Your task to perform on an android device: toggle improve location accuracy Image 0: 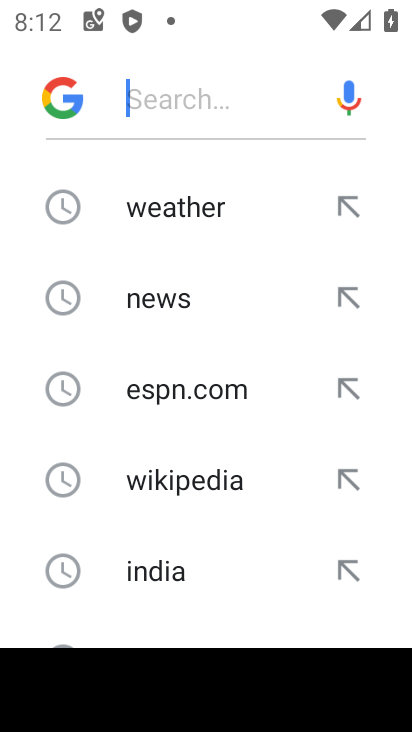
Step 0: press home button
Your task to perform on an android device: toggle improve location accuracy Image 1: 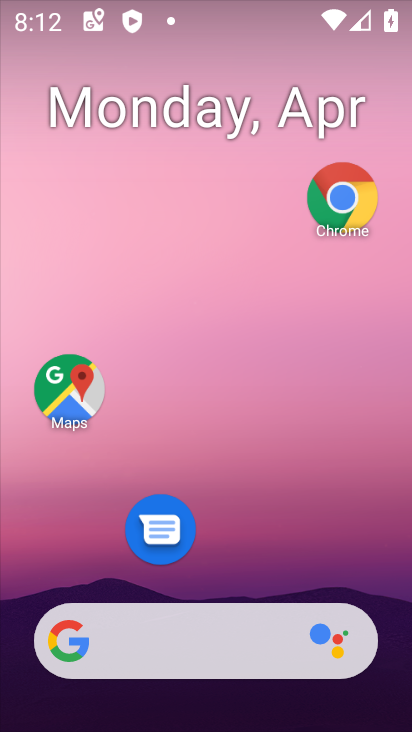
Step 1: drag from (215, 566) to (276, 20)
Your task to perform on an android device: toggle improve location accuracy Image 2: 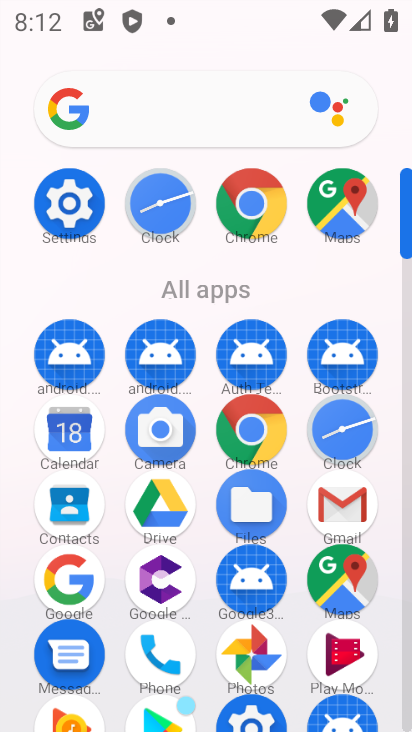
Step 2: click (66, 217)
Your task to perform on an android device: toggle improve location accuracy Image 3: 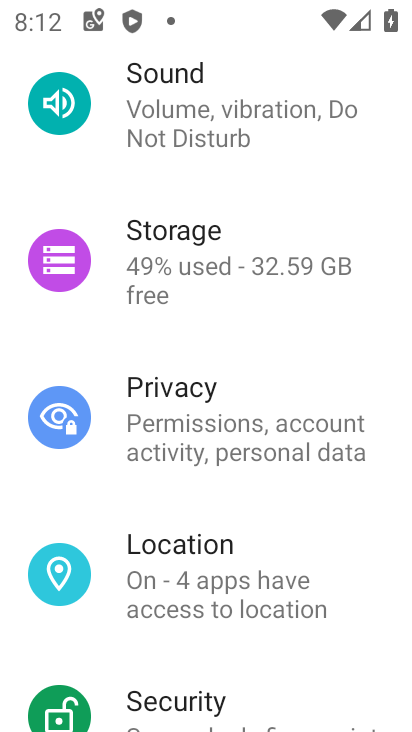
Step 3: click (224, 554)
Your task to perform on an android device: toggle improve location accuracy Image 4: 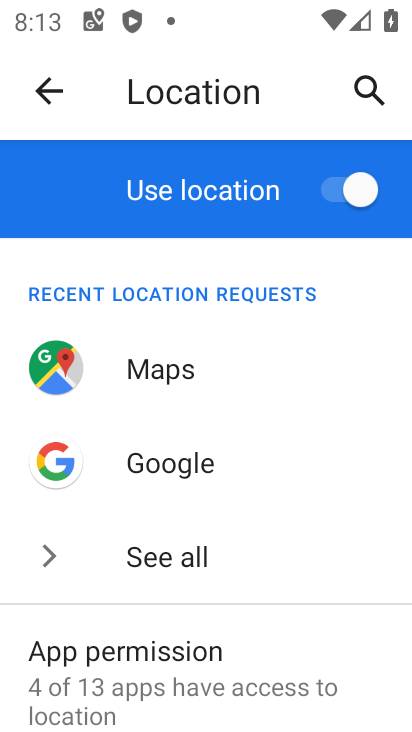
Step 4: drag from (191, 656) to (274, 171)
Your task to perform on an android device: toggle improve location accuracy Image 5: 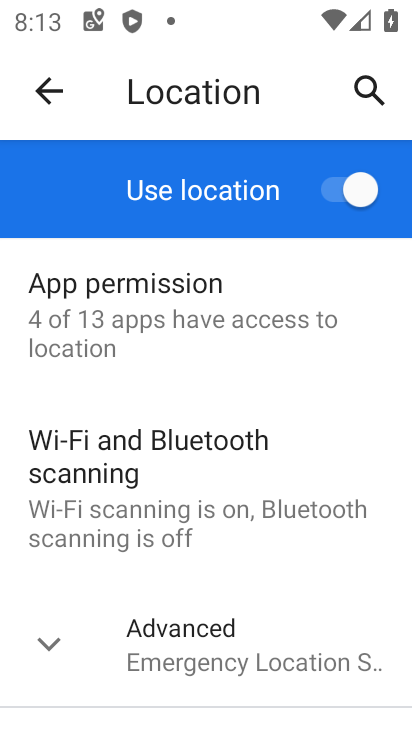
Step 5: click (213, 647)
Your task to perform on an android device: toggle improve location accuracy Image 6: 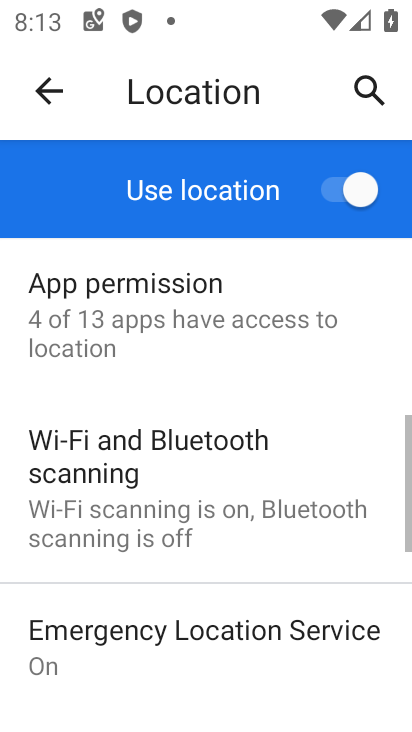
Step 6: drag from (170, 599) to (262, 136)
Your task to perform on an android device: toggle improve location accuracy Image 7: 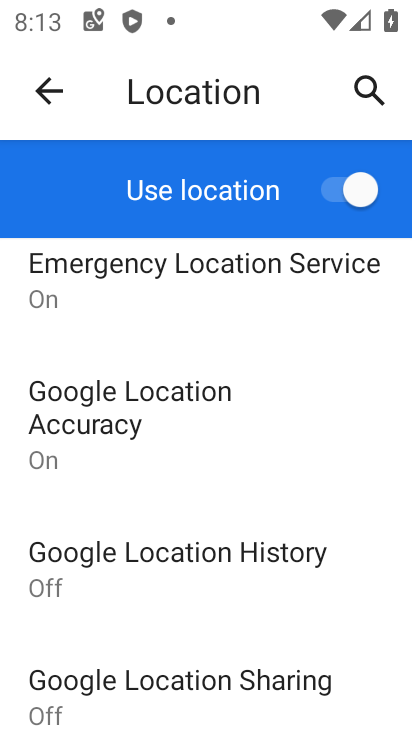
Step 7: click (159, 415)
Your task to perform on an android device: toggle improve location accuracy Image 8: 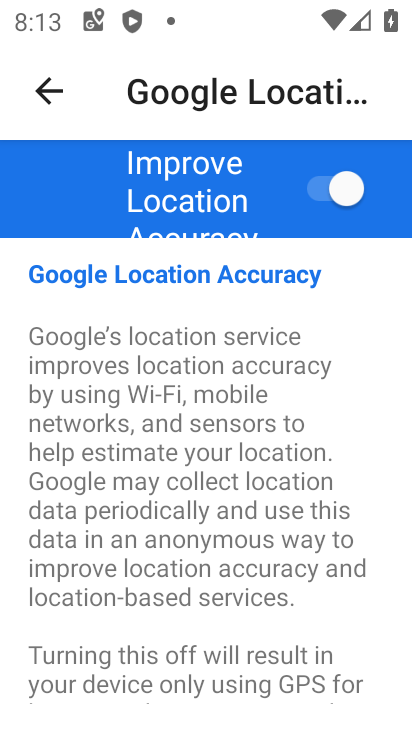
Step 8: click (335, 186)
Your task to perform on an android device: toggle improve location accuracy Image 9: 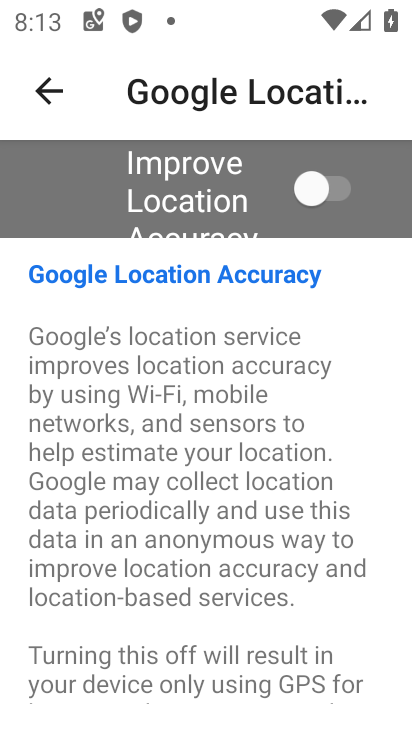
Step 9: task complete